Your task to perform on an android device: open a new tab in the chrome app Image 0: 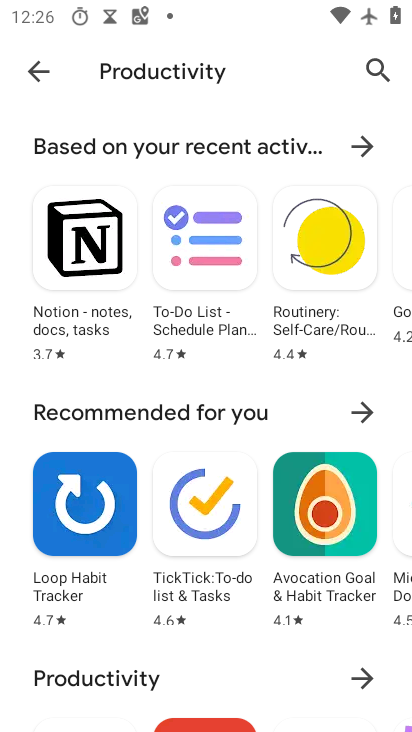
Step 0: press home button
Your task to perform on an android device: open a new tab in the chrome app Image 1: 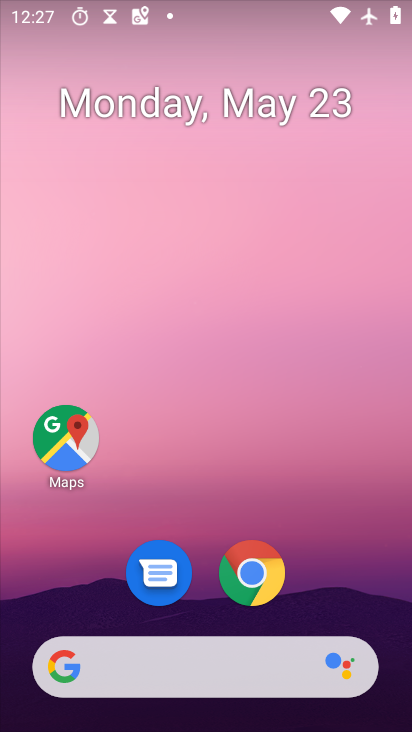
Step 1: click (248, 580)
Your task to perform on an android device: open a new tab in the chrome app Image 2: 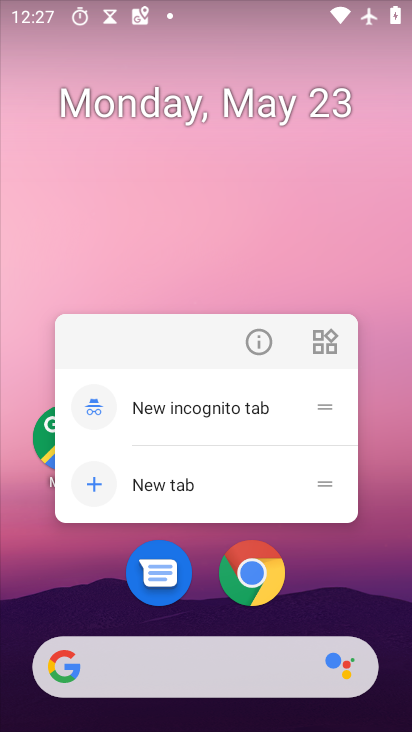
Step 2: click (252, 587)
Your task to perform on an android device: open a new tab in the chrome app Image 3: 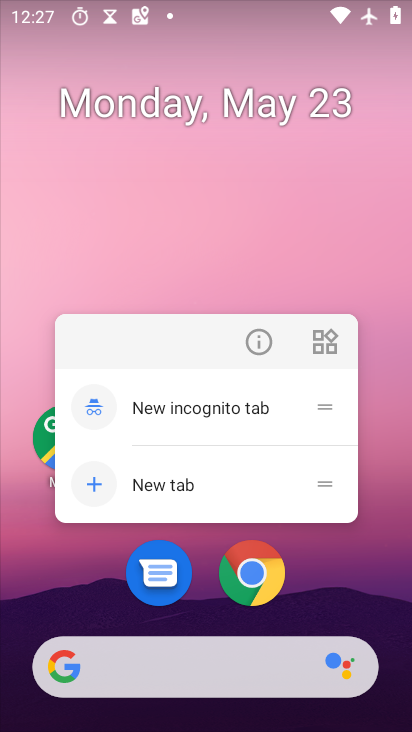
Step 3: click (262, 586)
Your task to perform on an android device: open a new tab in the chrome app Image 4: 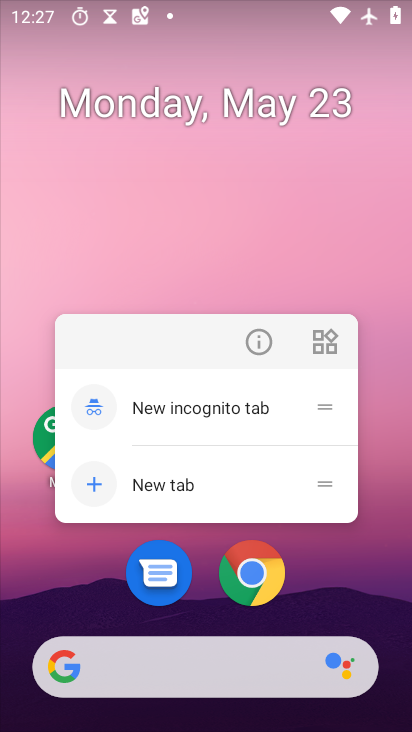
Step 4: click (260, 577)
Your task to perform on an android device: open a new tab in the chrome app Image 5: 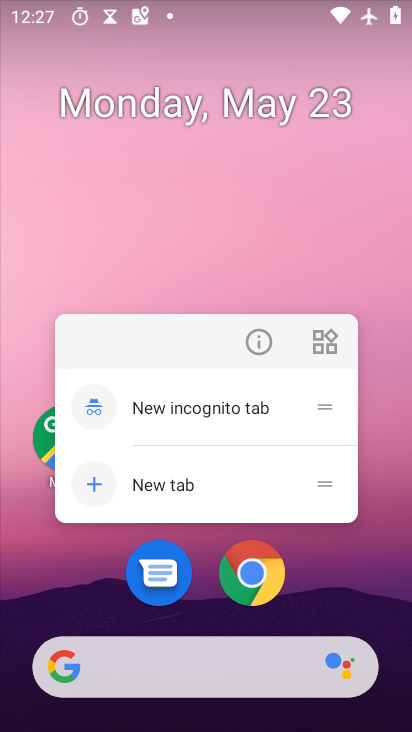
Step 5: click (256, 569)
Your task to perform on an android device: open a new tab in the chrome app Image 6: 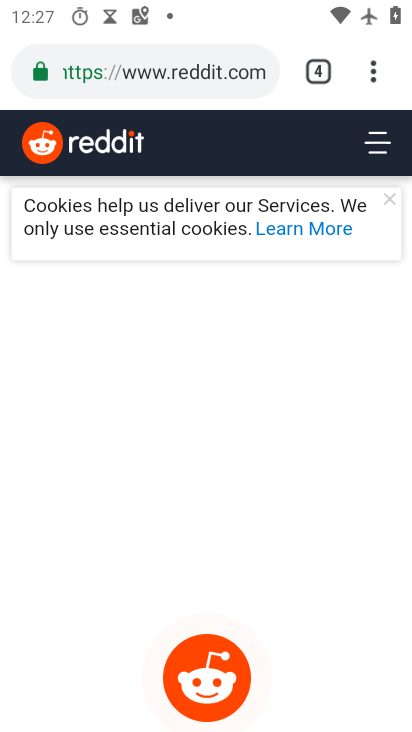
Step 6: task complete